Your task to perform on an android device: What is the recent news? Image 0: 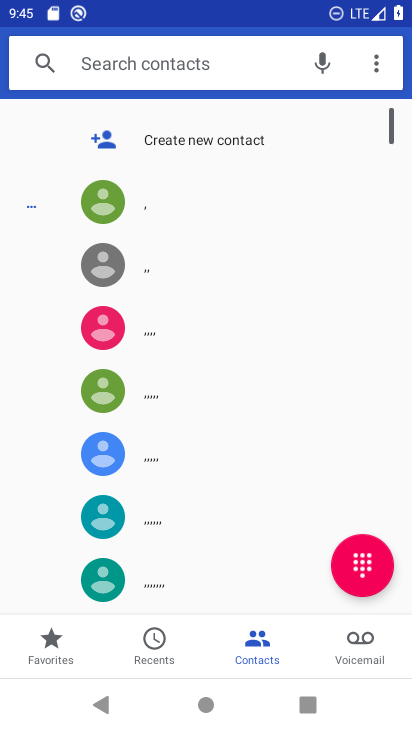
Step 0: press home button
Your task to perform on an android device: What is the recent news? Image 1: 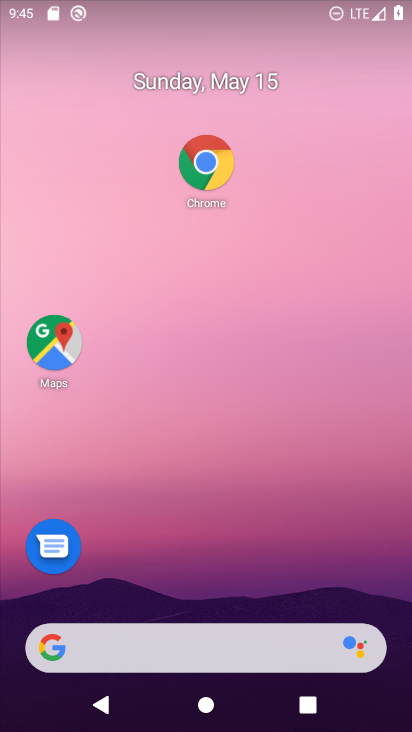
Step 1: click (207, 152)
Your task to perform on an android device: What is the recent news? Image 2: 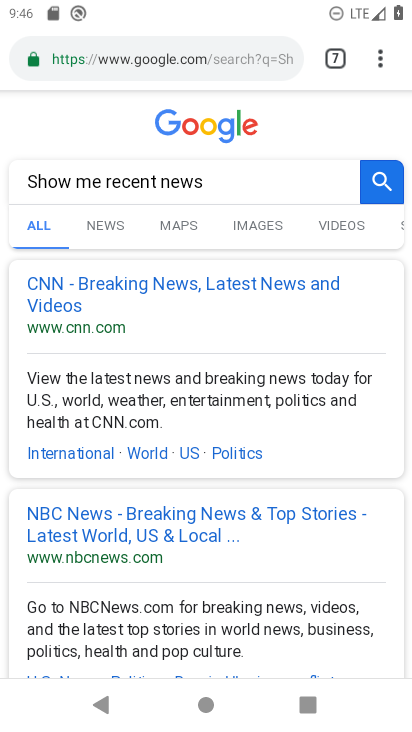
Step 2: task complete